Your task to perform on an android device: open chrome privacy settings Image 0: 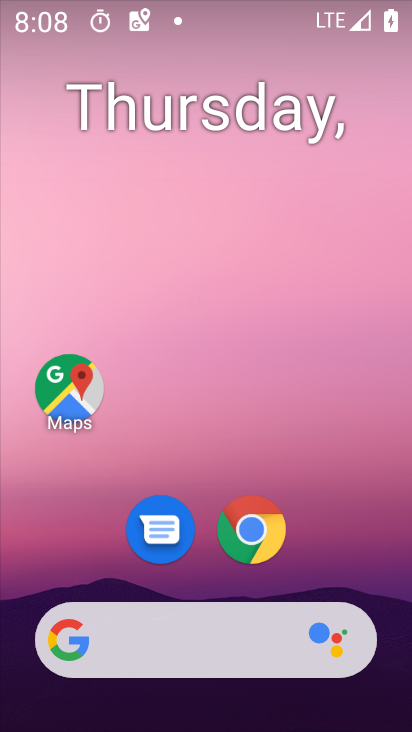
Step 0: drag from (378, 582) to (378, 170)
Your task to perform on an android device: open chrome privacy settings Image 1: 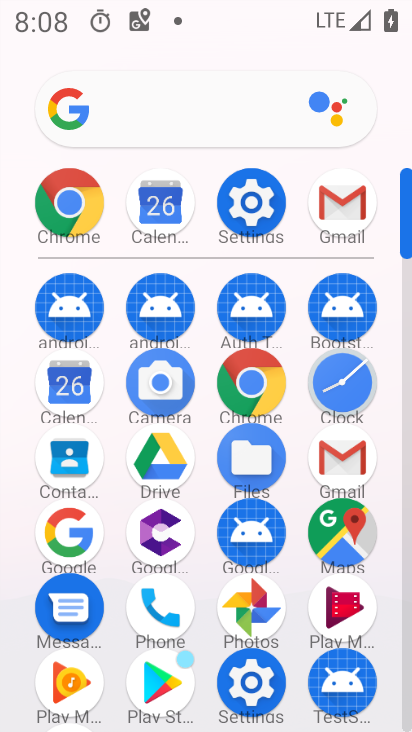
Step 1: click (268, 391)
Your task to perform on an android device: open chrome privacy settings Image 2: 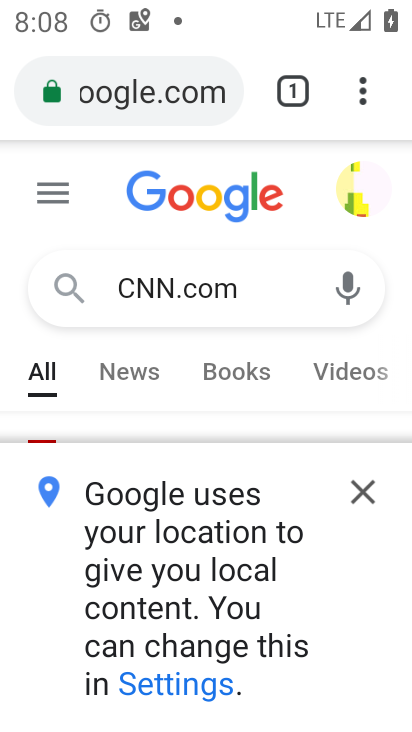
Step 2: click (361, 97)
Your task to perform on an android device: open chrome privacy settings Image 3: 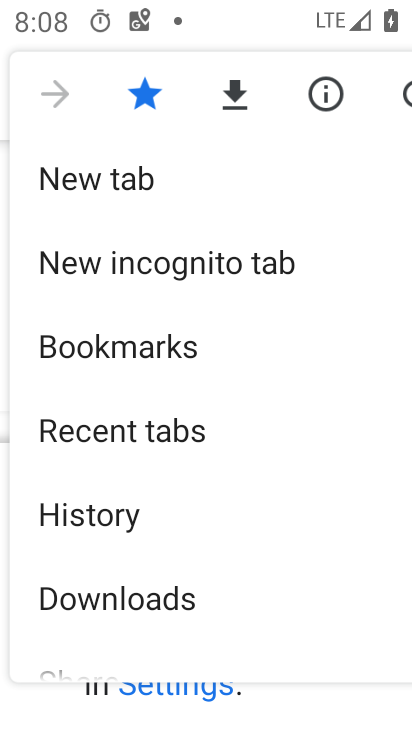
Step 3: drag from (330, 293) to (340, 209)
Your task to perform on an android device: open chrome privacy settings Image 4: 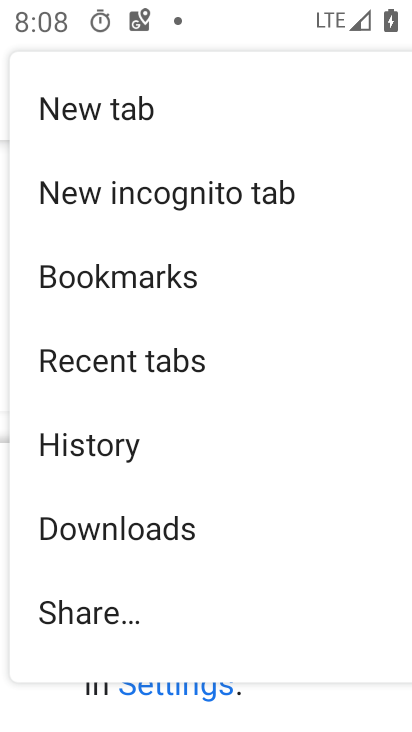
Step 4: drag from (331, 312) to (336, 221)
Your task to perform on an android device: open chrome privacy settings Image 5: 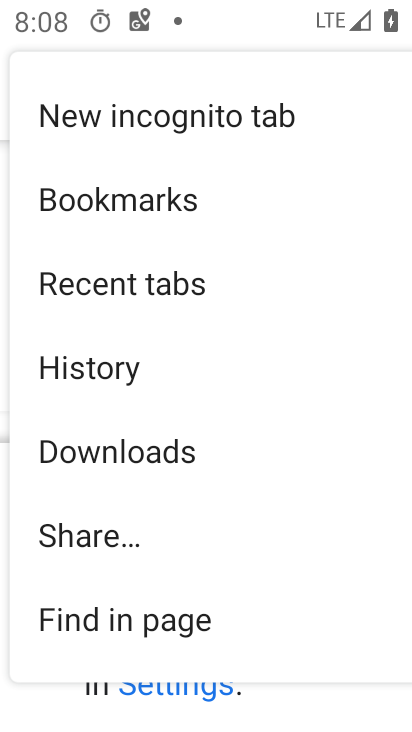
Step 5: drag from (329, 293) to (322, 209)
Your task to perform on an android device: open chrome privacy settings Image 6: 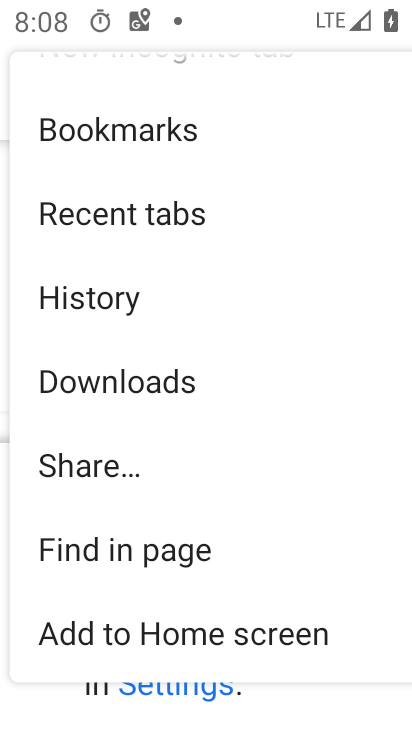
Step 6: drag from (320, 306) to (321, 232)
Your task to perform on an android device: open chrome privacy settings Image 7: 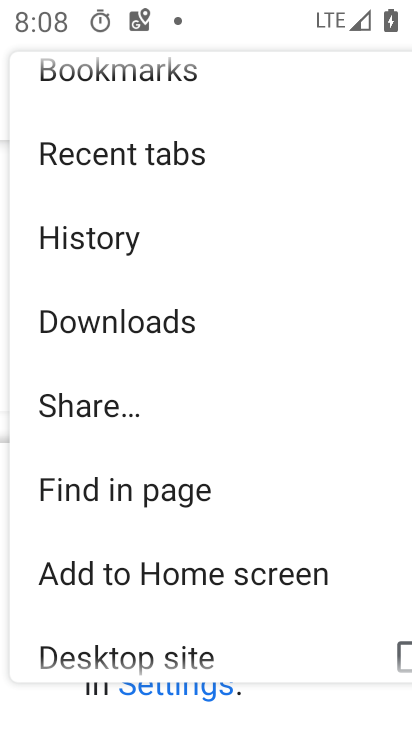
Step 7: drag from (317, 338) to (309, 246)
Your task to perform on an android device: open chrome privacy settings Image 8: 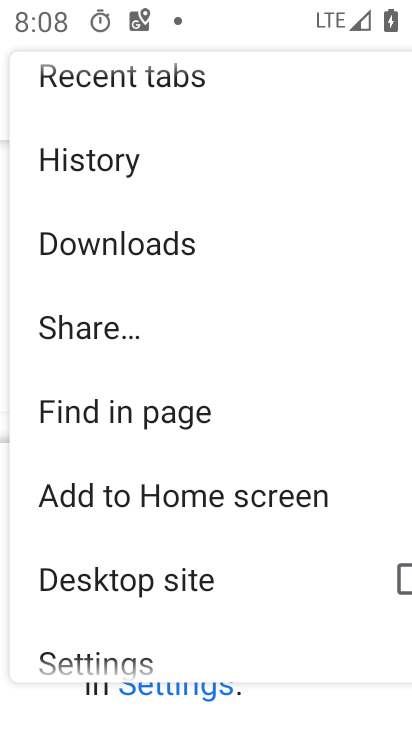
Step 8: drag from (304, 361) to (309, 275)
Your task to perform on an android device: open chrome privacy settings Image 9: 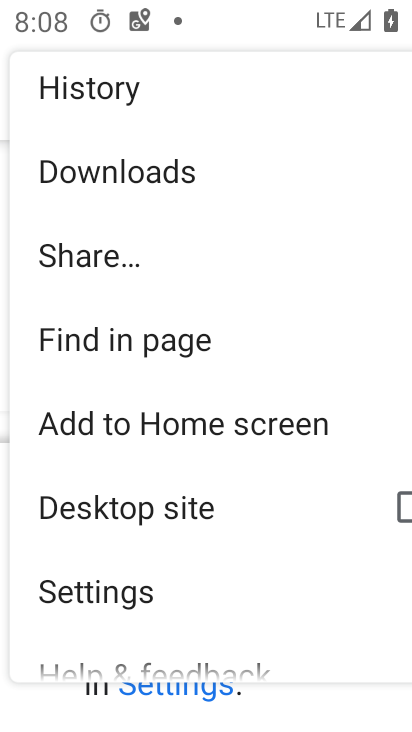
Step 9: drag from (314, 373) to (316, 286)
Your task to perform on an android device: open chrome privacy settings Image 10: 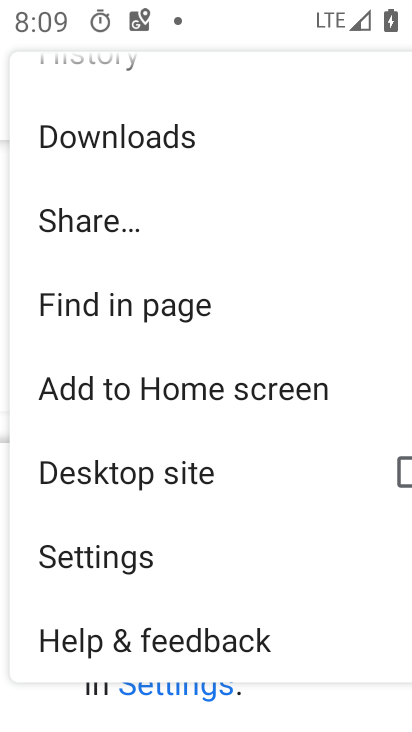
Step 10: drag from (317, 410) to (320, 291)
Your task to perform on an android device: open chrome privacy settings Image 11: 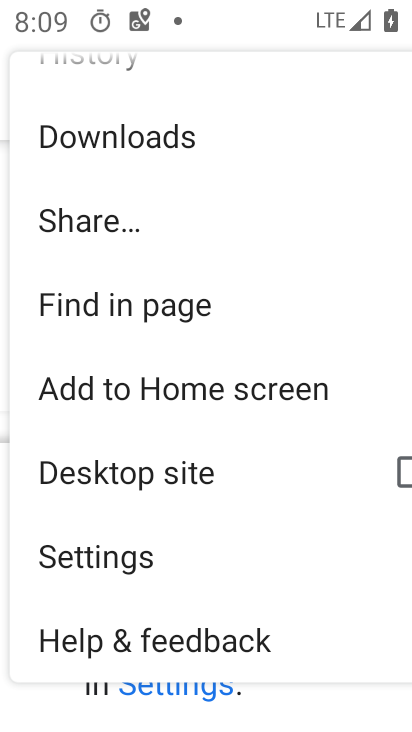
Step 11: click (138, 543)
Your task to perform on an android device: open chrome privacy settings Image 12: 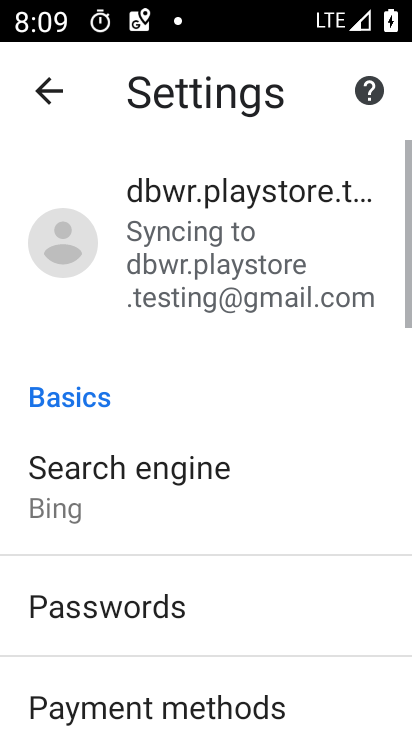
Step 12: drag from (283, 514) to (298, 399)
Your task to perform on an android device: open chrome privacy settings Image 13: 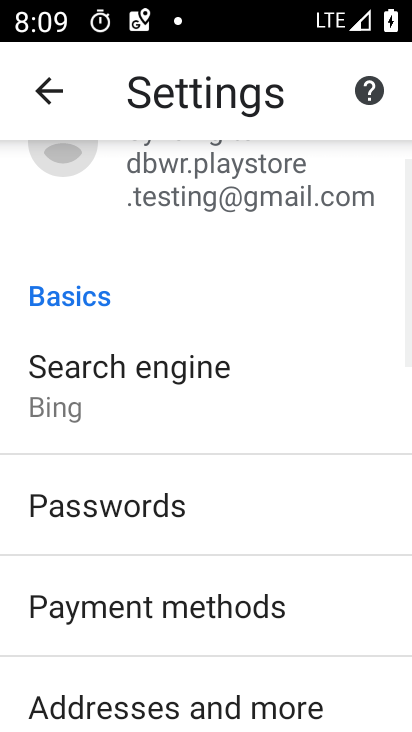
Step 13: drag from (308, 489) to (324, 403)
Your task to perform on an android device: open chrome privacy settings Image 14: 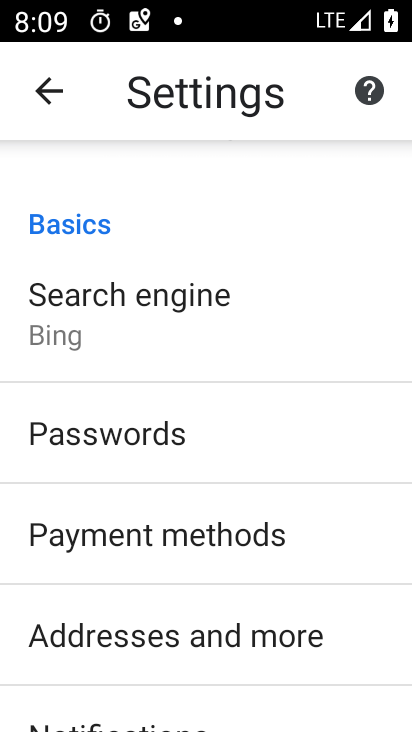
Step 14: drag from (324, 501) to (341, 401)
Your task to perform on an android device: open chrome privacy settings Image 15: 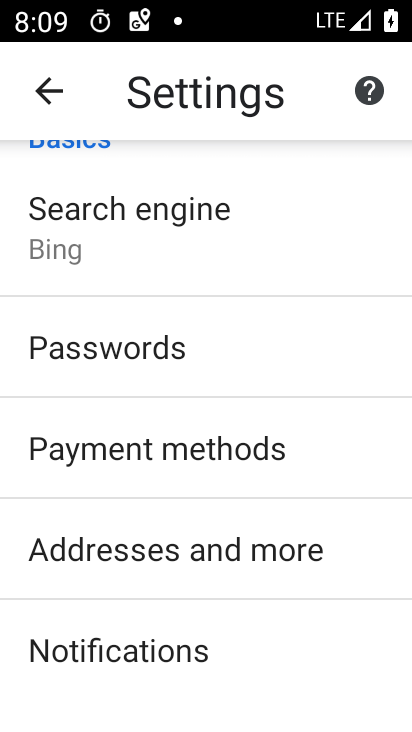
Step 15: drag from (356, 486) to (355, 413)
Your task to perform on an android device: open chrome privacy settings Image 16: 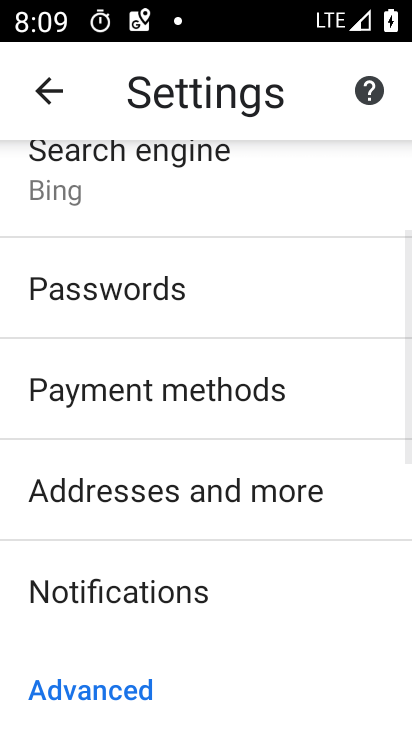
Step 16: drag from (344, 507) to (355, 422)
Your task to perform on an android device: open chrome privacy settings Image 17: 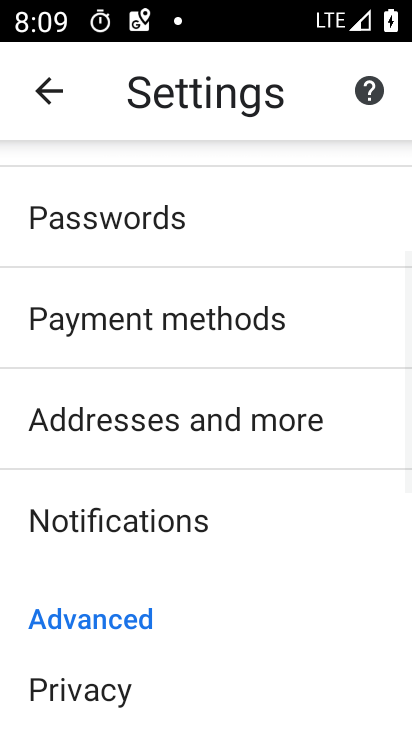
Step 17: drag from (347, 538) to (349, 455)
Your task to perform on an android device: open chrome privacy settings Image 18: 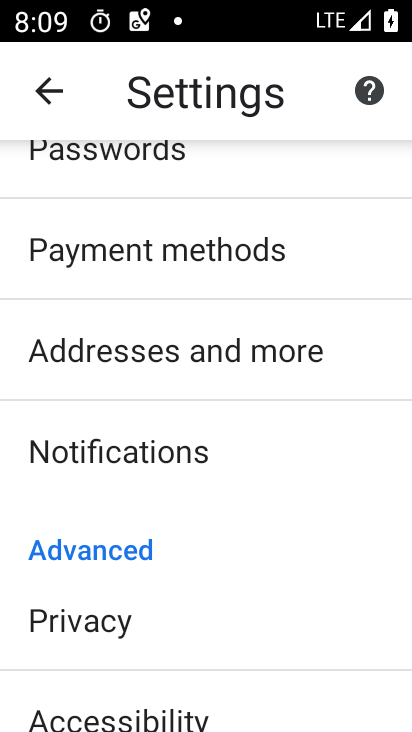
Step 18: drag from (329, 562) to (337, 458)
Your task to perform on an android device: open chrome privacy settings Image 19: 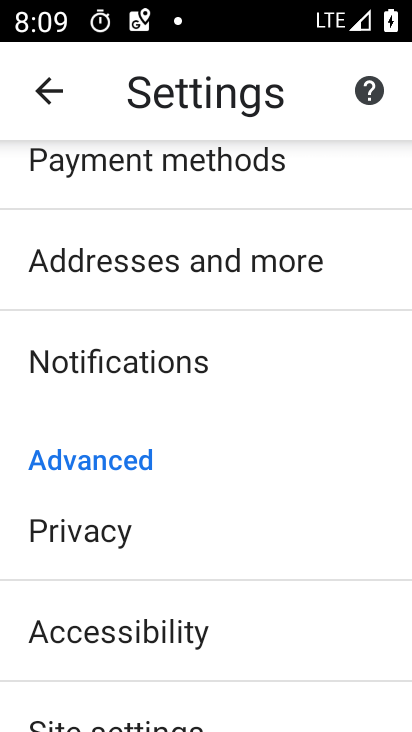
Step 19: drag from (331, 577) to (332, 491)
Your task to perform on an android device: open chrome privacy settings Image 20: 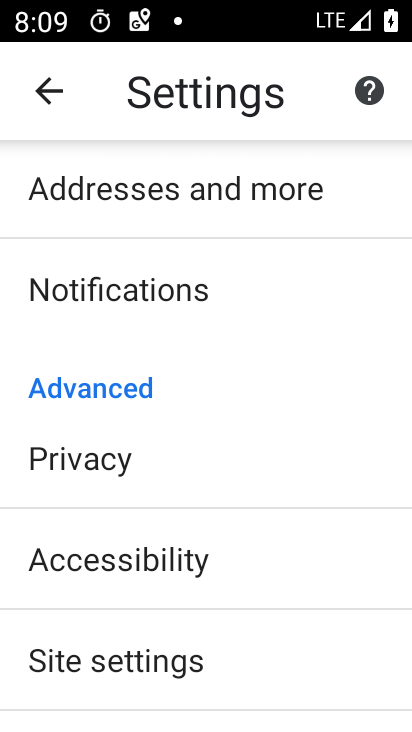
Step 20: drag from (310, 600) to (315, 507)
Your task to perform on an android device: open chrome privacy settings Image 21: 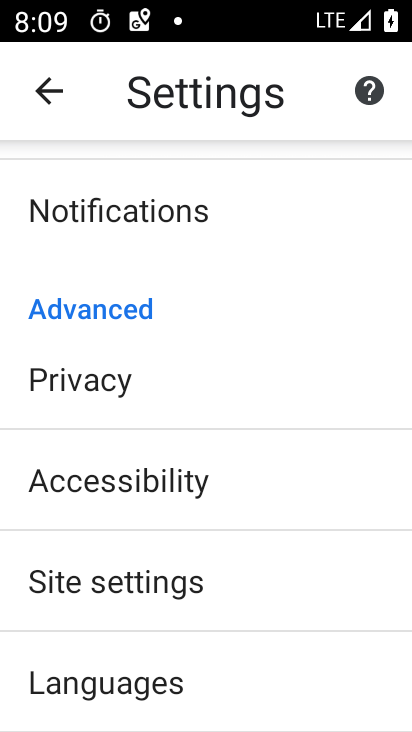
Step 21: drag from (292, 610) to (295, 527)
Your task to perform on an android device: open chrome privacy settings Image 22: 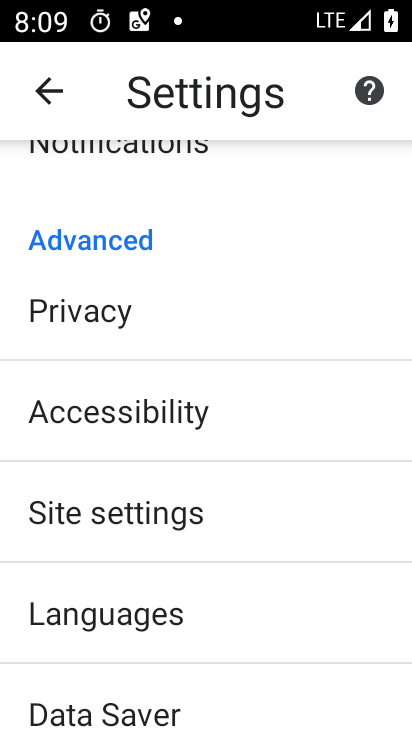
Step 22: click (137, 338)
Your task to perform on an android device: open chrome privacy settings Image 23: 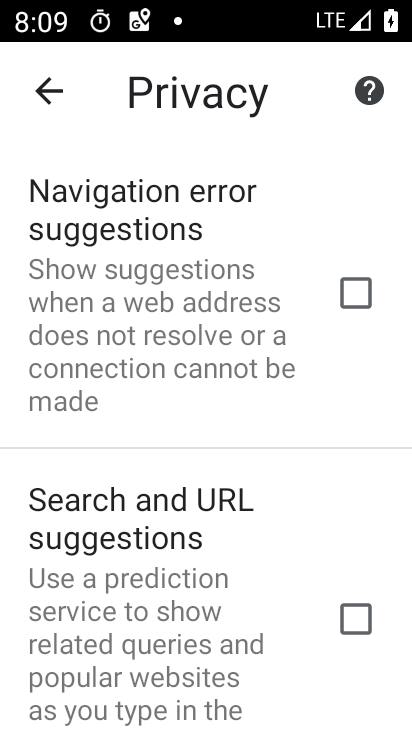
Step 23: task complete